Your task to perform on an android device: change keyboard looks Image 0: 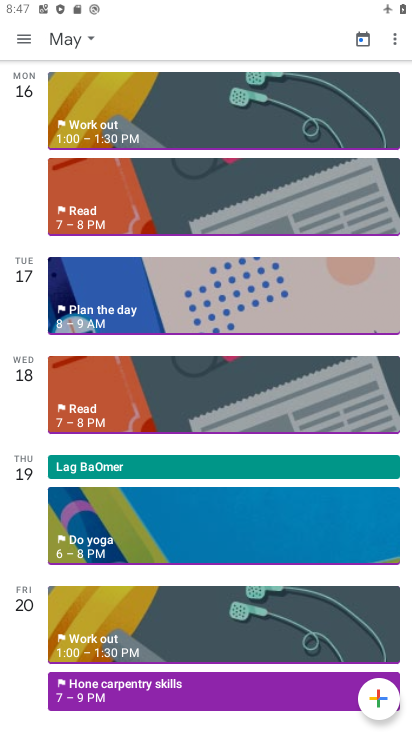
Step 0: press home button
Your task to perform on an android device: change keyboard looks Image 1: 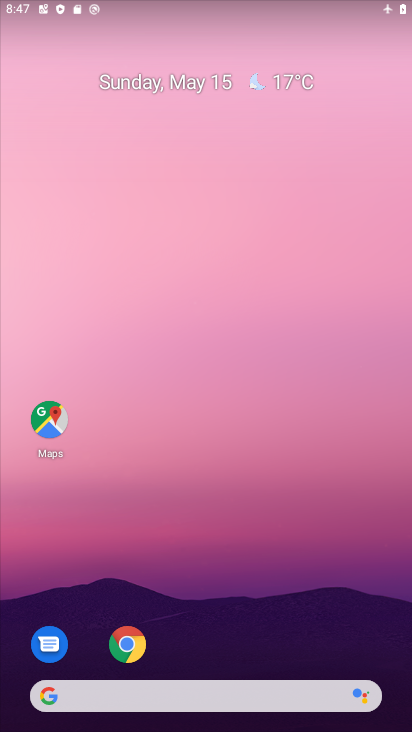
Step 1: drag from (295, 712) to (171, 193)
Your task to perform on an android device: change keyboard looks Image 2: 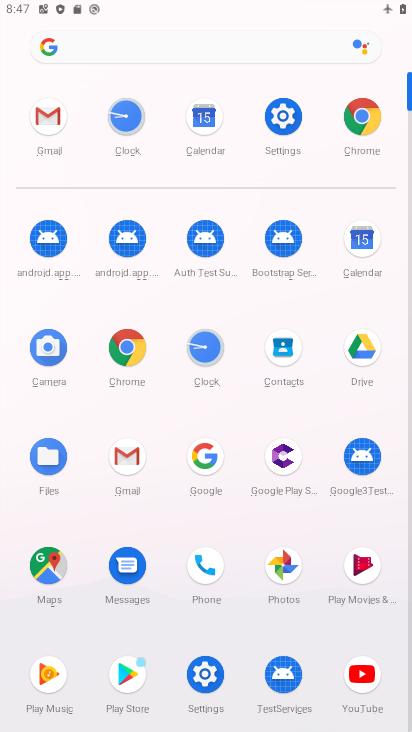
Step 2: click (282, 131)
Your task to perform on an android device: change keyboard looks Image 3: 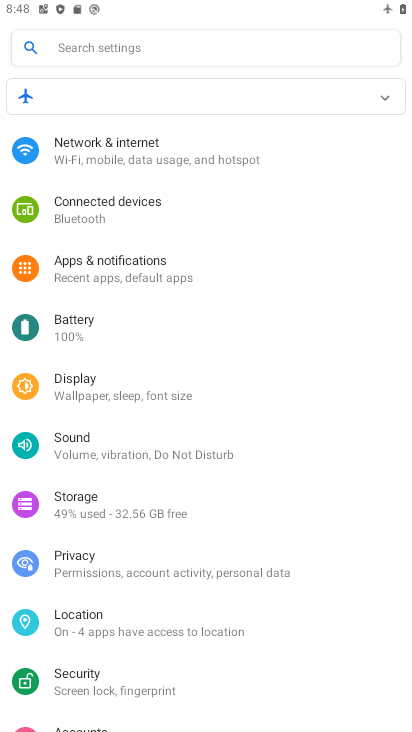
Step 3: click (127, 49)
Your task to perform on an android device: change keyboard looks Image 4: 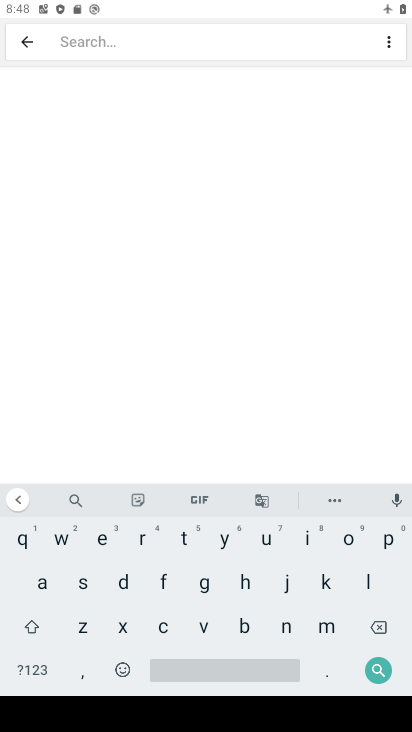
Step 4: click (318, 588)
Your task to perform on an android device: change keyboard looks Image 5: 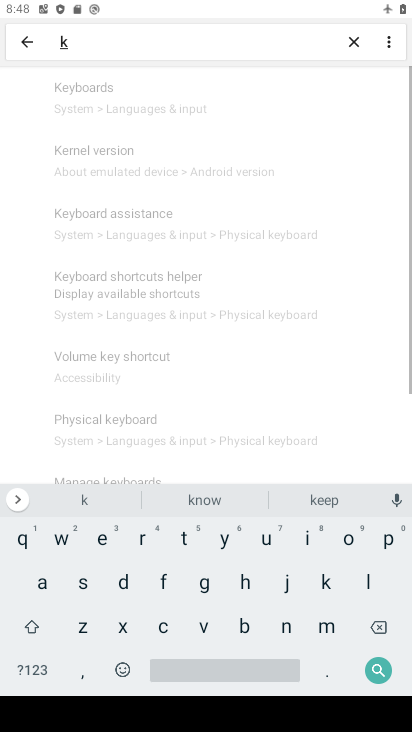
Step 5: click (96, 538)
Your task to perform on an android device: change keyboard looks Image 6: 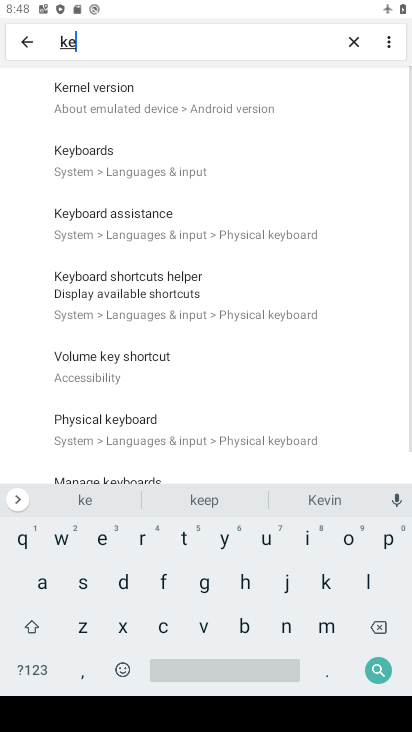
Step 6: click (131, 159)
Your task to perform on an android device: change keyboard looks Image 7: 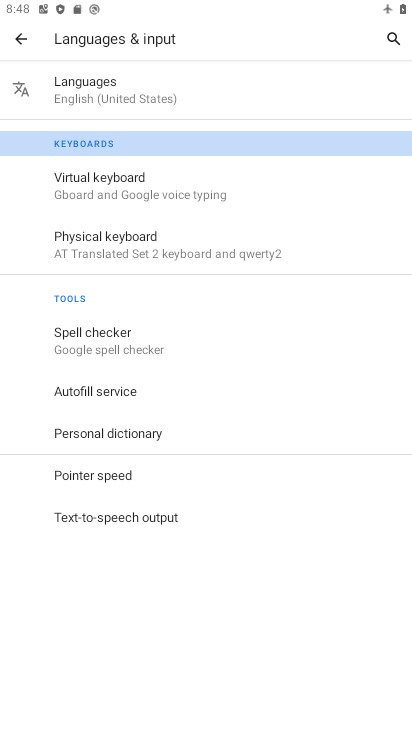
Step 7: click (134, 187)
Your task to perform on an android device: change keyboard looks Image 8: 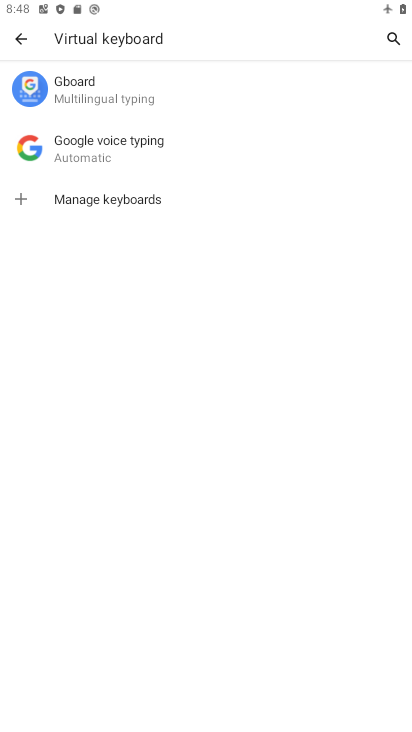
Step 8: click (127, 103)
Your task to perform on an android device: change keyboard looks Image 9: 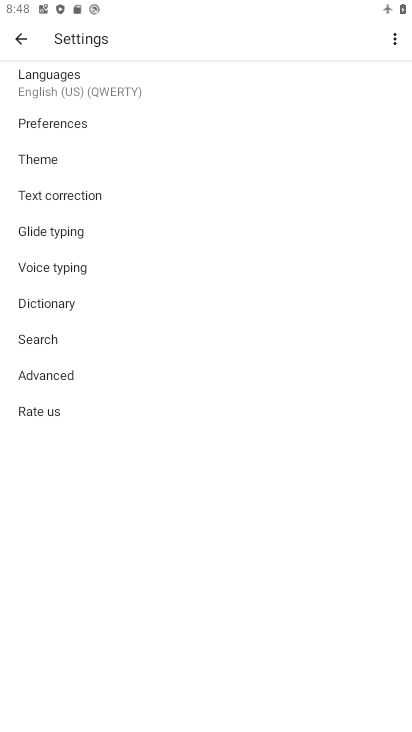
Step 9: click (85, 161)
Your task to perform on an android device: change keyboard looks Image 10: 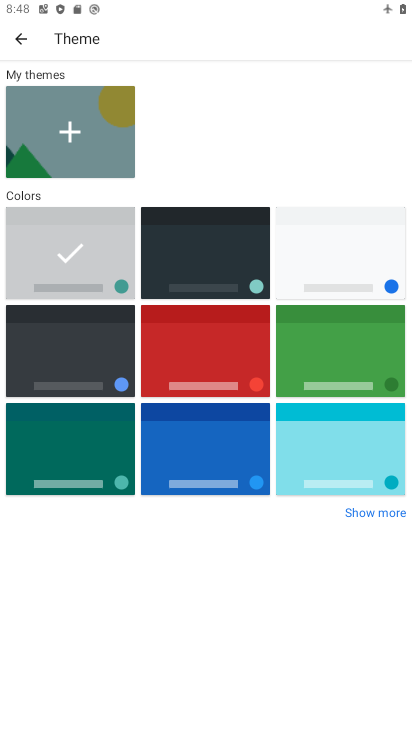
Step 10: click (72, 460)
Your task to perform on an android device: change keyboard looks Image 11: 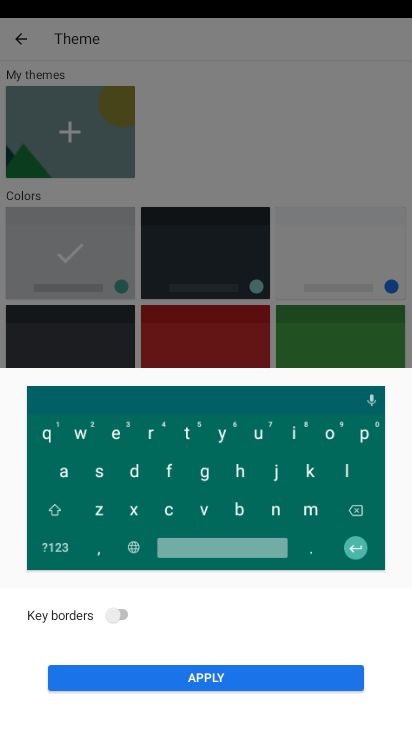
Step 11: click (120, 608)
Your task to perform on an android device: change keyboard looks Image 12: 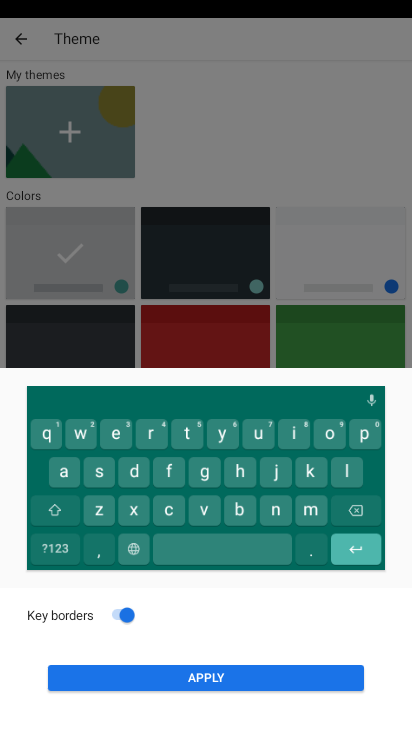
Step 12: click (174, 684)
Your task to perform on an android device: change keyboard looks Image 13: 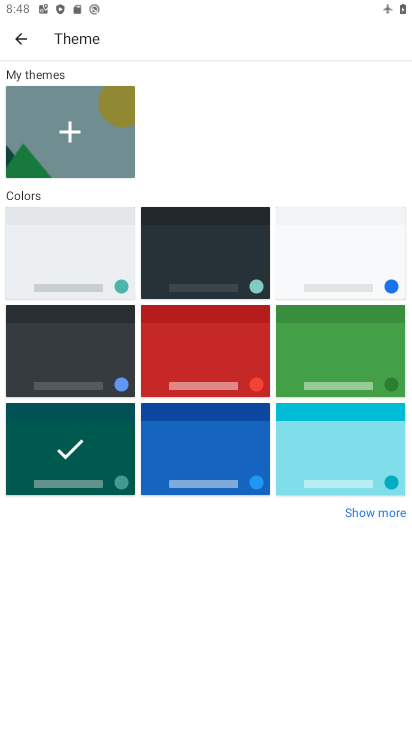
Step 13: task complete